Your task to perform on an android device: Open the calendar and show me this week's events Image 0: 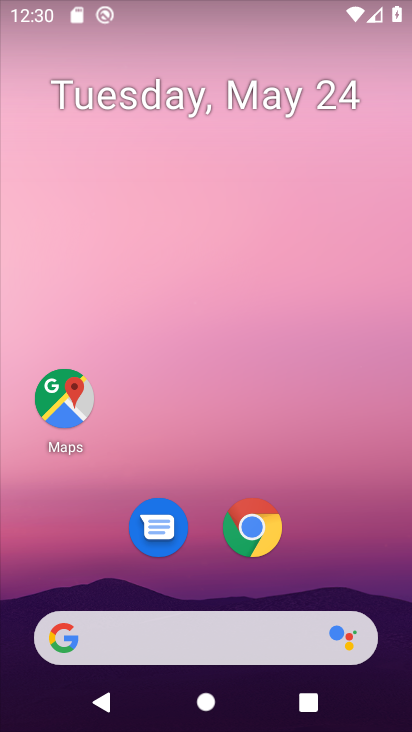
Step 0: drag from (334, 539) to (248, 48)
Your task to perform on an android device: Open the calendar and show me this week's events Image 1: 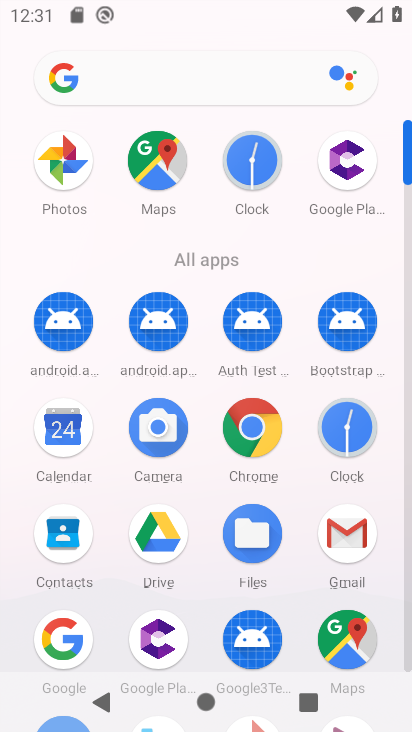
Step 1: click (51, 422)
Your task to perform on an android device: Open the calendar and show me this week's events Image 2: 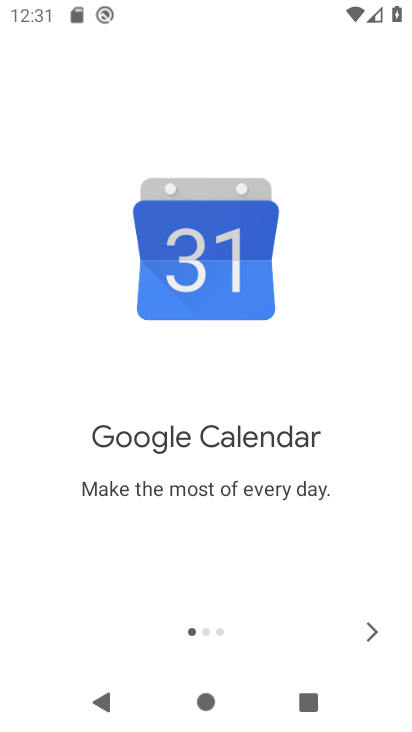
Step 2: click (369, 638)
Your task to perform on an android device: Open the calendar and show me this week's events Image 3: 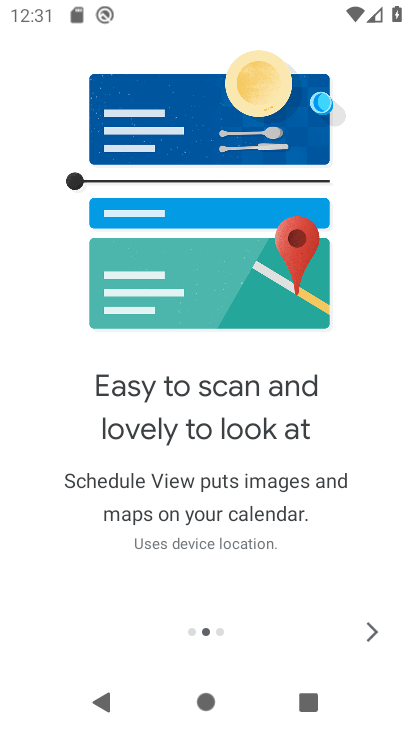
Step 3: click (369, 638)
Your task to perform on an android device: Open the calendar and show me this week's events Image 4: 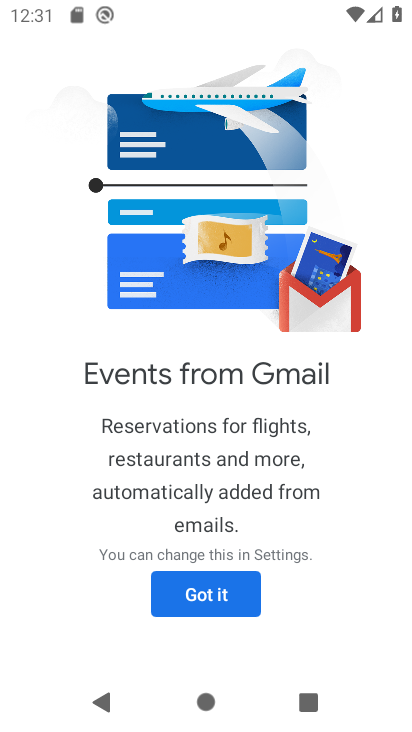
Step 4: click (218, 590)
Your task to perform on an android device: Open the calendar and show me this week's events Image 5: 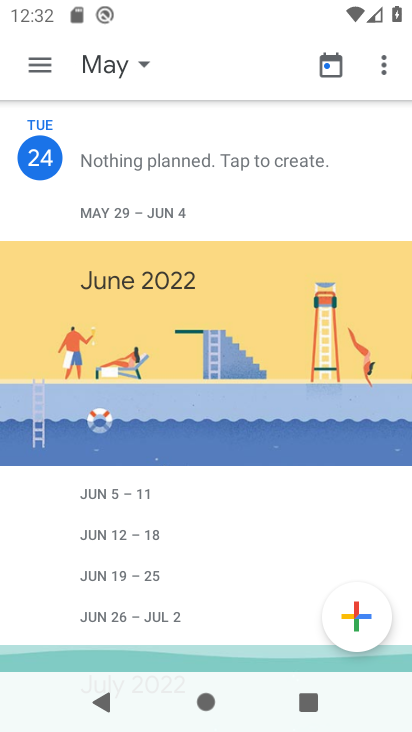
Step 5: click (142, 70)
Your task to perform on an android device: Open the calendar and show me this week's events Image 6: 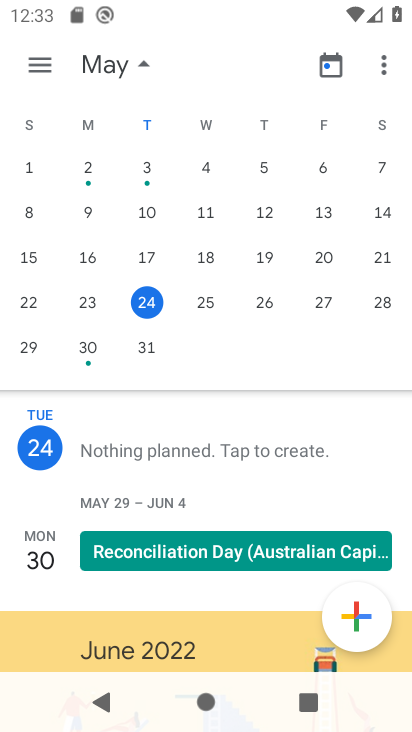
Step 6: click (146, 302)
Your task to perform on an android device: Open the calendar and show me this week's events Image 7: 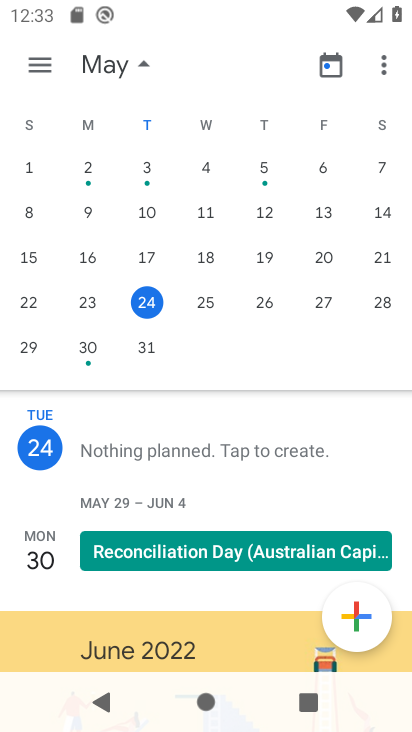
Step 7: click (41, 62)
Your task to perform on an android device: Open the calendar and show me this week's events Image 8: 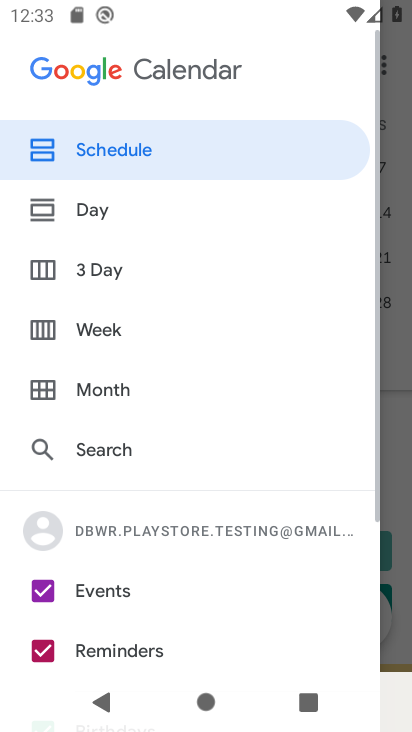
Step 8: click (85, 322)
Your task to perform on an android device: Open the calendar and show me this week's events Image 9: 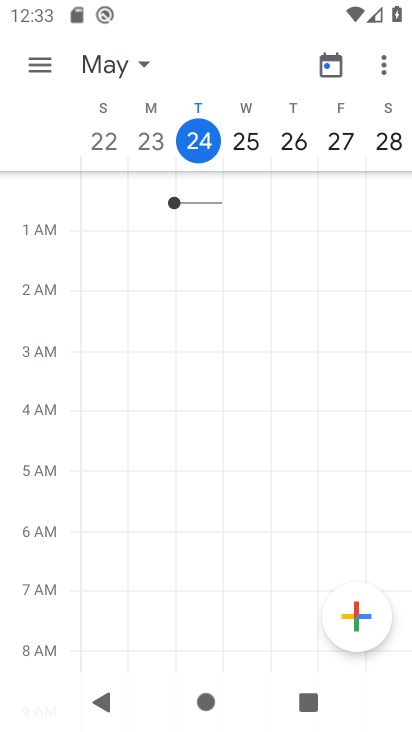
Step 9: task complete